Your task to perform on an android device: Go to wifi settings Image 0: 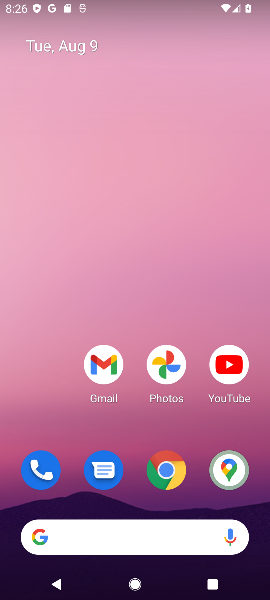
Step 0: drag from (113, 501) to (168, 90)
Your task to perform on an android device: Go to wifi settings Image 1: 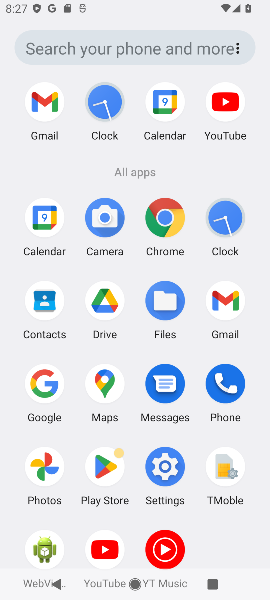
Step 1: click (161, 480)
Your task to perform on an android device: Go to wifi settings Image 2: 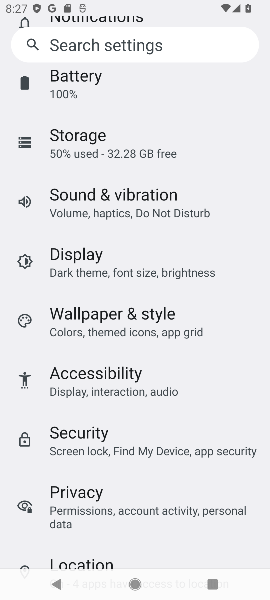
Step 2: drag from (171, 100) to (142, 573)
Your task to perform on an android device: Go to wifi settings Image 3: 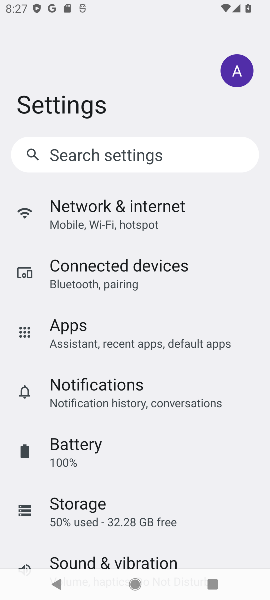
Step 3: click (164, 192)
Your task to perform on an android device: Go to wifi settings Image 4: 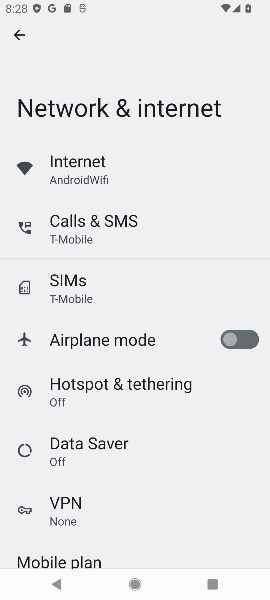
Step 4: click (131, 171)
Your task to perform on an android device: Go to wifi settings Image 5: 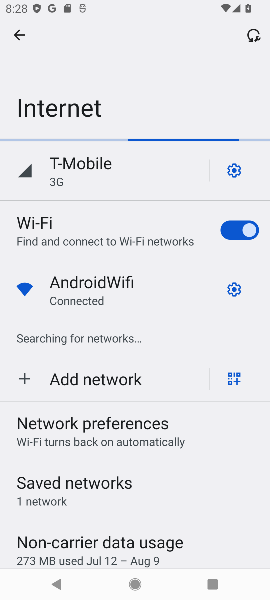
Step 5: task complete